Your task to perform on an android device: Go to CNN.com Image 0: 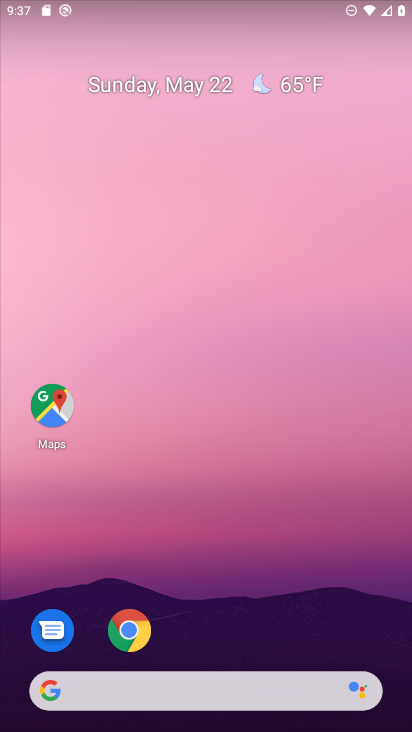
Step 0: press home button
Your task to perform on an android device: Go to CNN.com Image 1: 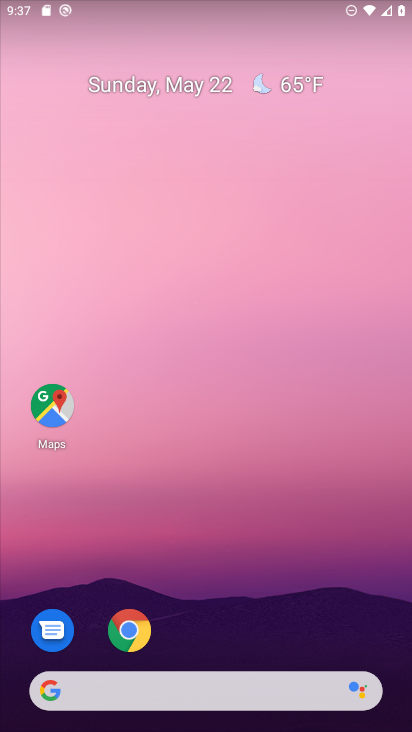
Step 1: click (128, 632)
Your task to perform on an android device: Go to CNN.com Image 2: 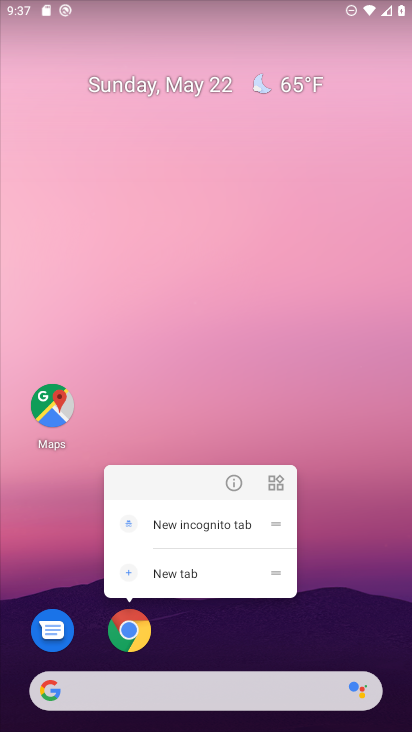
Step 2: click (131, 622)
Your task to perform on an android device: Go to CNN.com Image 3: 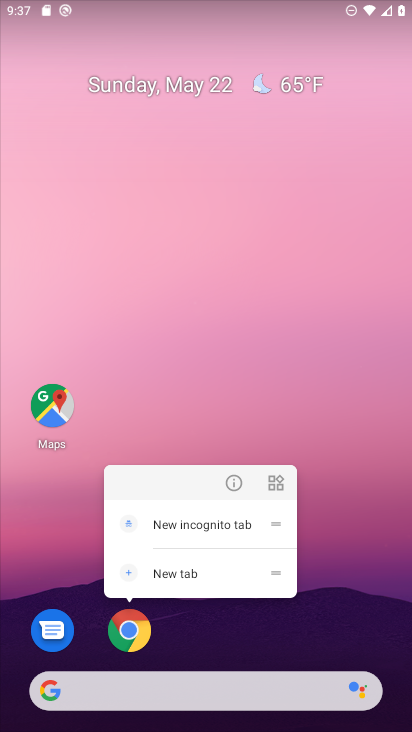
Step 3: click (129, 632)
Your task to perform on an android device: Go to CNN.com Image 4: 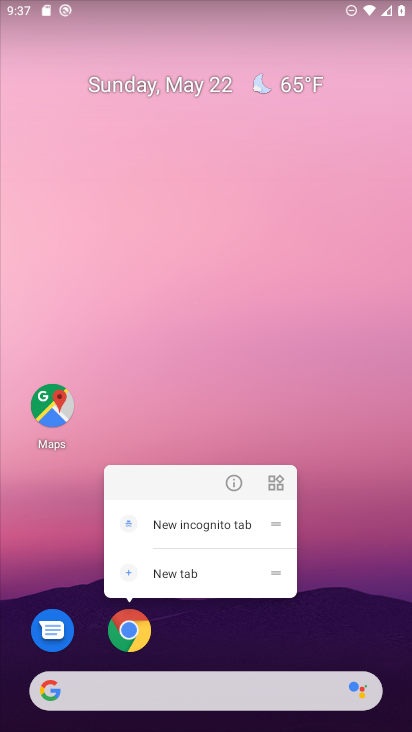
Step 4: click (129, 641)
Your task to perform on an android device: Go to CNN.com Image 5: 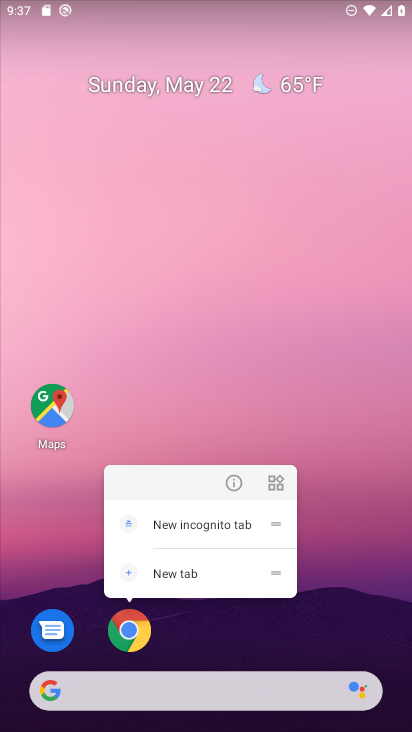
Step 5: drag from (150, 690) to (312, 59)
Your task to perform on an android device: Go to CNN.com Image 6: 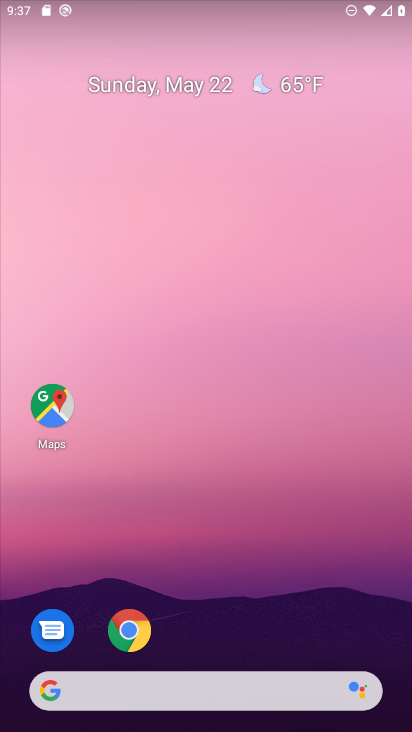
Step 6: drag from (209, 685) to (291, 63)
Your task to perform on an android device: Go to CNN.com Image 7: 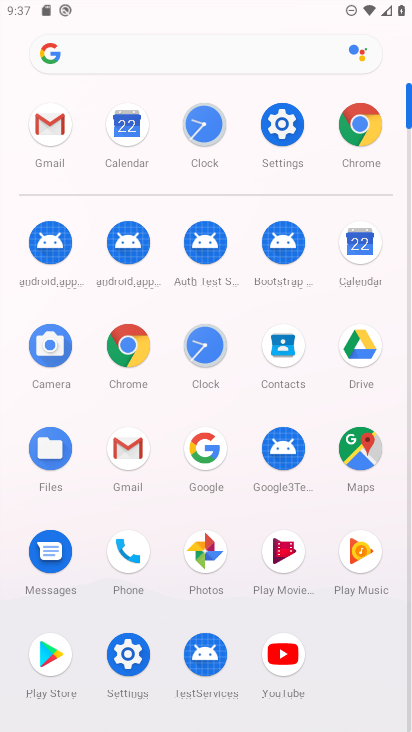
Step 7: click (371, 135)
Your task to perform on an android device: Go to CNN.com Image 8: 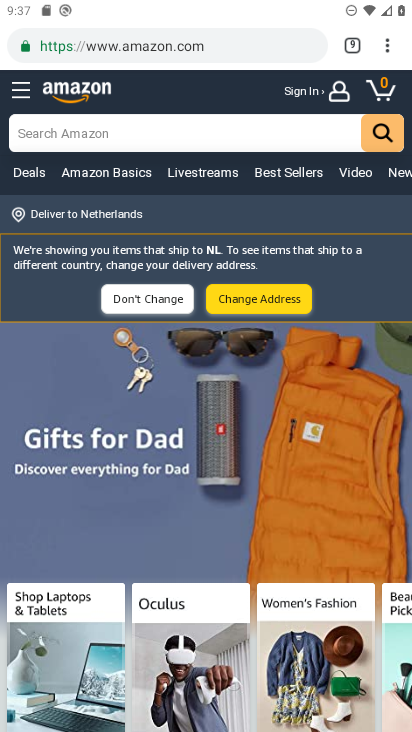
Step 8: drag from (388, 50) to (305, 90)
Your task to perform on an android device: Go to CNN.com Image 9: 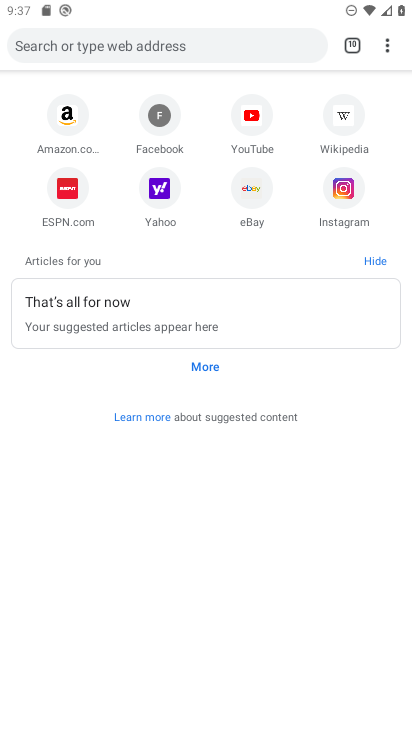
Step 9: click (152, 43)
Your task to perform on an android device: Go to CNN.com Image 10: 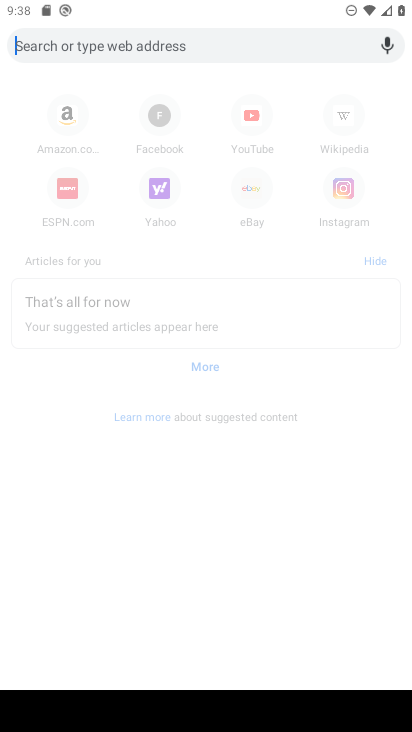
Step 10: type "cnn.com"
Your task to perform on an android device: Go to CNN.com Image 11: 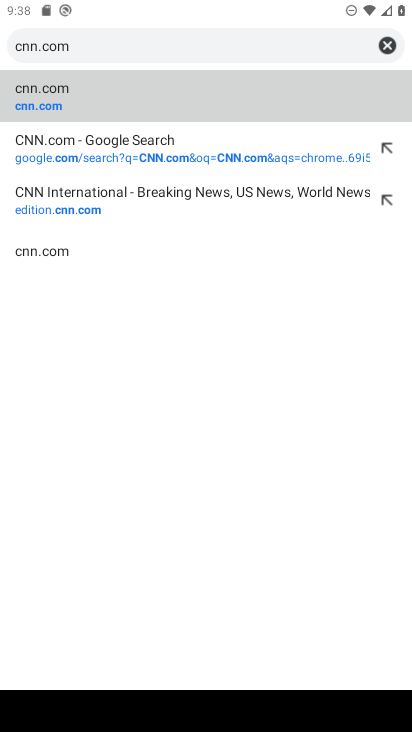
Step 11: click (59, 105)
Your task to perform on an android device: Go to CNN.com Image 12: 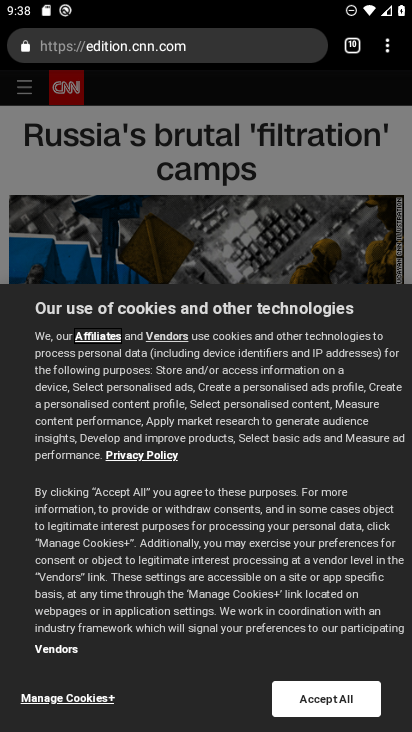
Step 12: click (353, 704)
Your task to perform on an android device: Go to CNN.com Image 13: 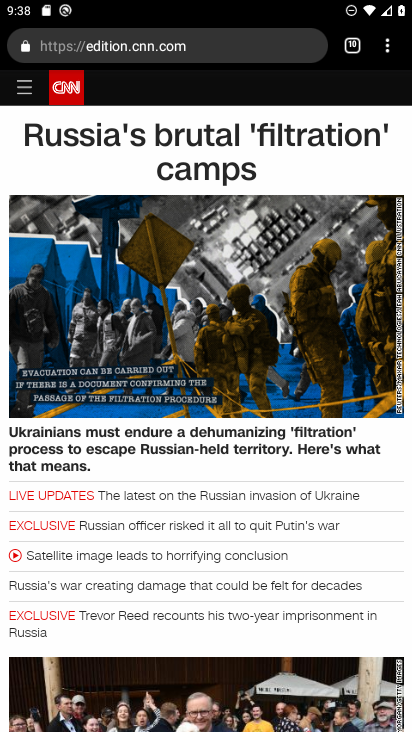
Step 13: task complete